Your task to perform on an android device: Open Youtube and go to "Your channel" Image 0: 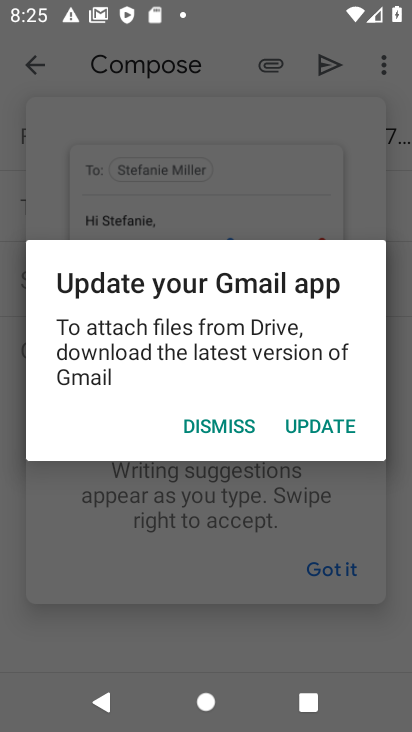
Step 0: press home button
Your task to perform on an android device: Open Youtube and go to "Your channel" Image 1: 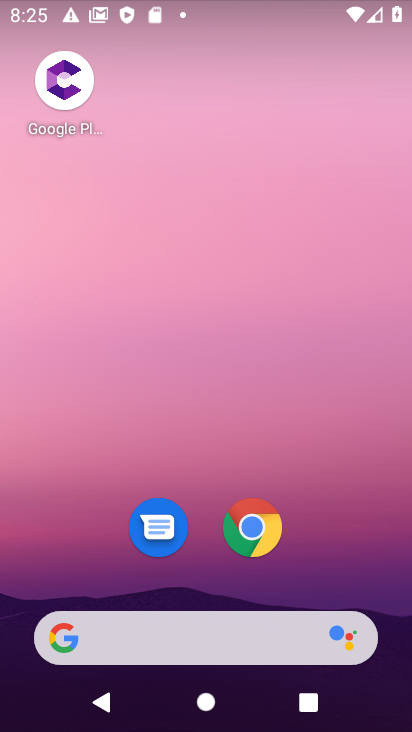
Step 1: drag from (203, 582) to (214, 21)
Your task to perform on an android device: Open Youtube and go to "Your channel" Image 2: 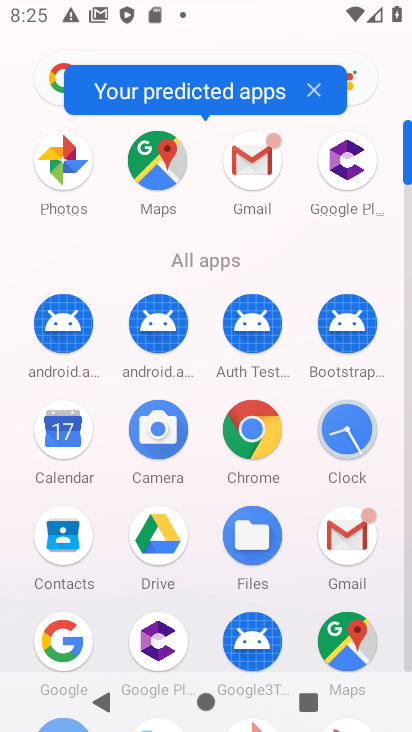
Step 2: drag from (208, 659) to (196, 163)
Your task to perform on an android device: Open Youtube and go to "Your channel" Image 3: 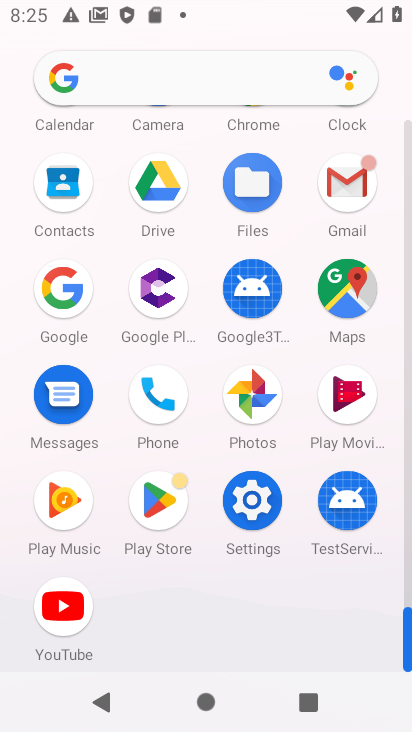
Step 3: click (56, 594)
Your task to perform on an android device: Open Youtube and go to "Your channel" Image 4: 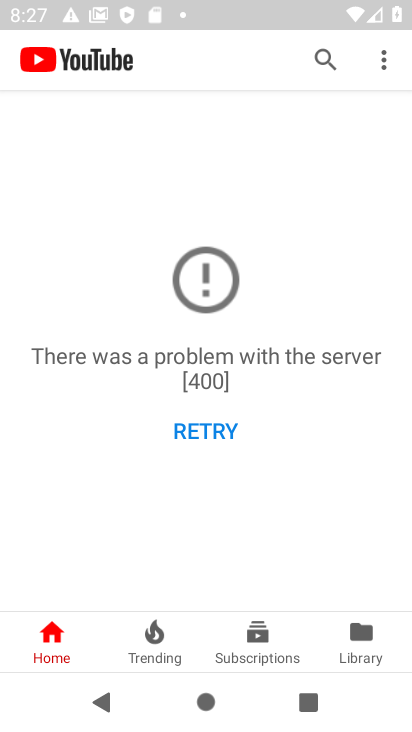
Step 4: task complete